Your task to perform on an android device: create a new album in the google photos Image 0: 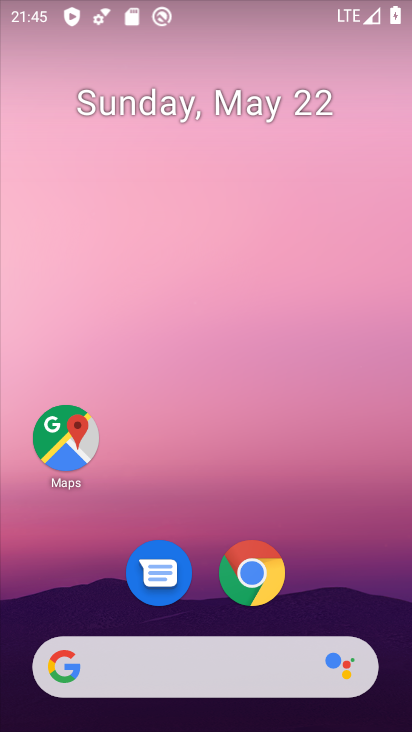
Step 0: press home button
Your task to perform on an android device: create a new album in the google photos Image 1: 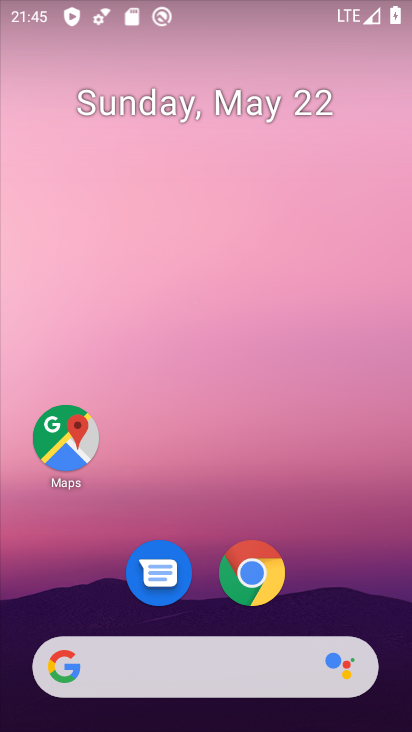
Step 1: drag from (383, 718) to (209, 21)
Your task to perform on an android device: create a new album in the google photos Image 2: 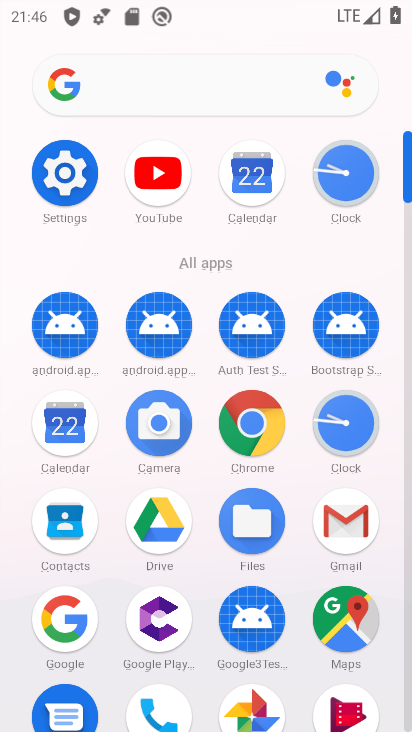
Step 2: click (230, 703)
Your task to perform on an android device: create a new album in the google photos Image 3: 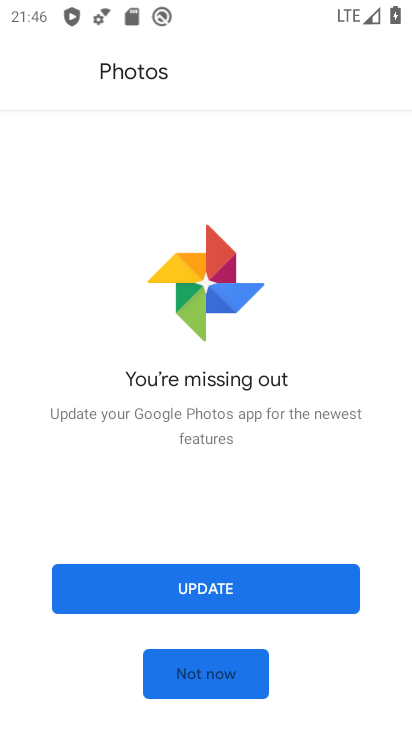
Step 3: click (267, 564)
Your task to perform on an android device: create a new album in the google photos Image 4: 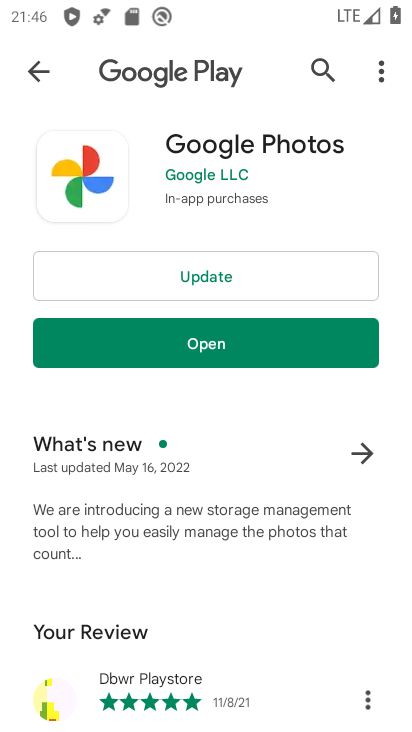
Step 4: click (177, 261)
Your task to perform on an android device: create a new album in the google photos Image 5: 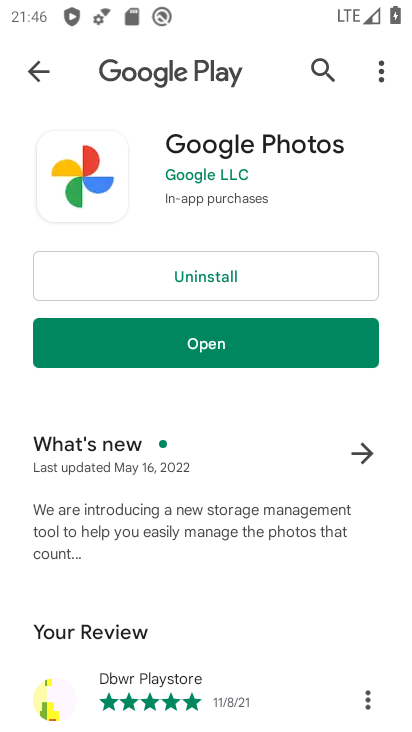
Step 5: click (368, 356)
Your task to perform on an android device: create a new album in the google photos Image 6: 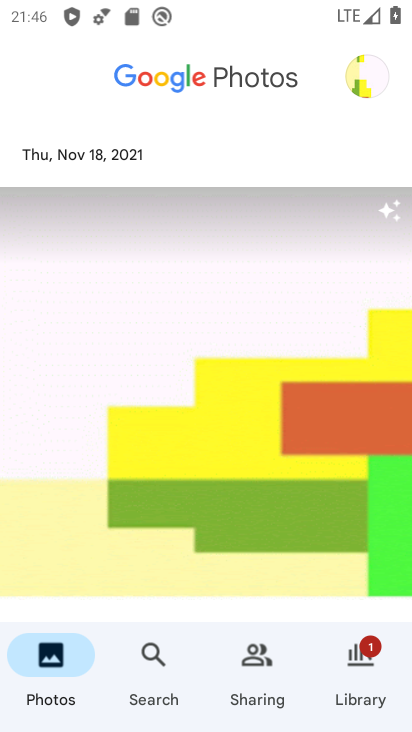
Step 6: click (370, 87)
Your task to perform on an android device: create a new album in the google photos Image 7: 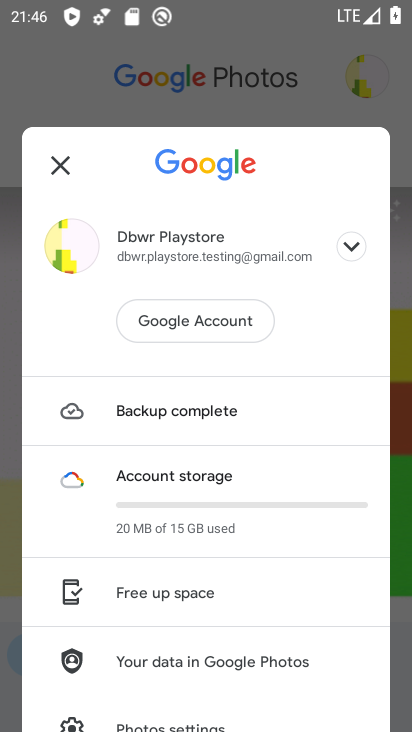
Step 7: click (86, 72)
Your task to perform on an android device: create a new album in the google photos Image 8: 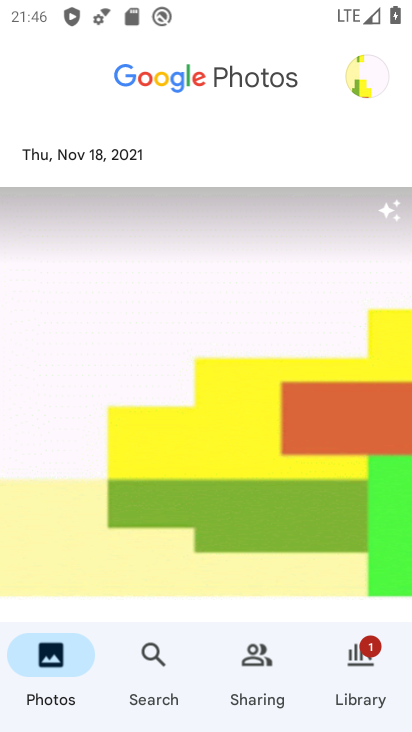
Step 8: drag from (168, 552) to (232, 84)
Your task to perform on an android device: create a new album in the google photos Image 9: 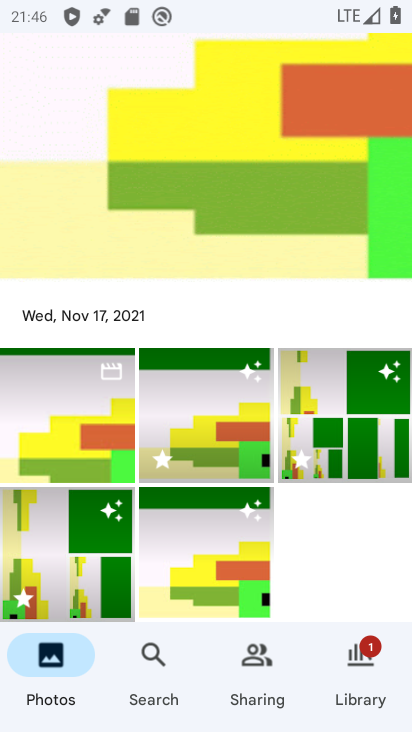
Step 9: click (78, 444)
Your task to perform on an android device: create a new album in the google photos Image 10: 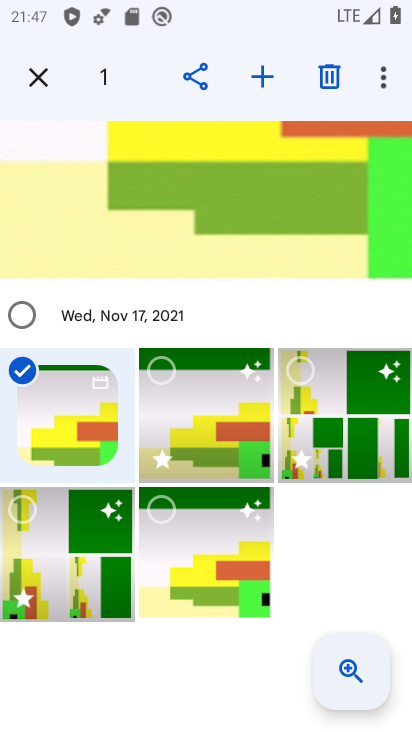
Step 10: click (178, 419)
Your task to perform on an android device: create a new album in the google photos Image 11: 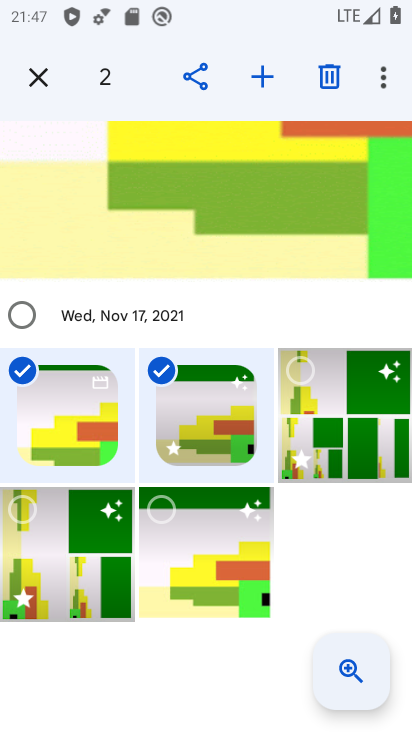
Step 11: click (311, 413)
Your task to perform on an android device: create a new album in the google photos Image 12: 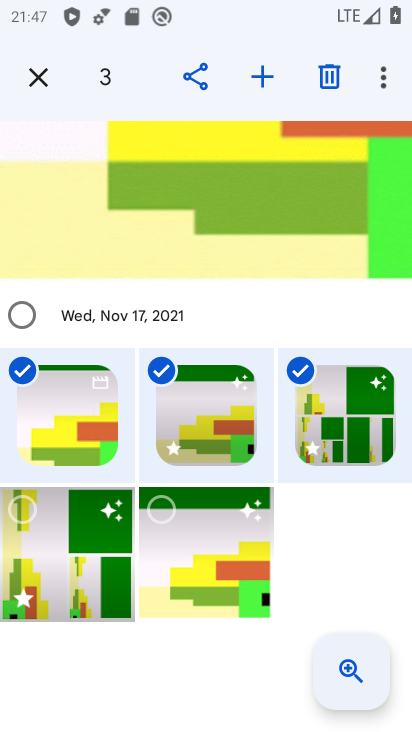
Step 12: click (230, 522)
Your task to perform on an android device: create a new album in the google photos Image 13: 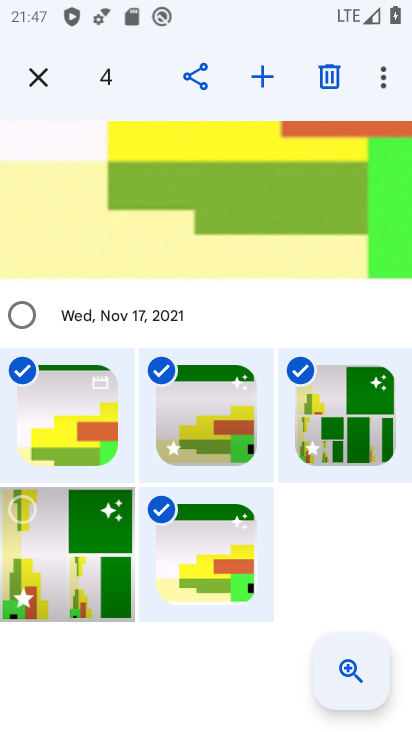
Step 13: click (268, 73)
Your task to perform on an android device: create a new album in the google photos Image 14: 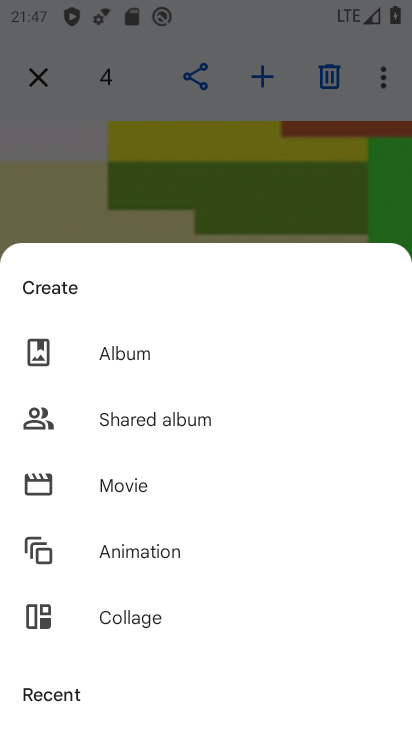
Step 14: click (132, 353)
Your task to perform on an android device: create a new album in the google photos Image 15: 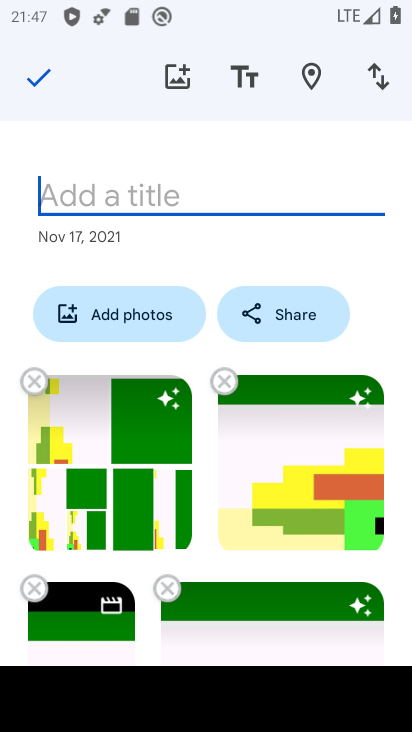
Step 15: type "dfghj"
Your task to perform on an android device: create a new album in the google photos Image 16: 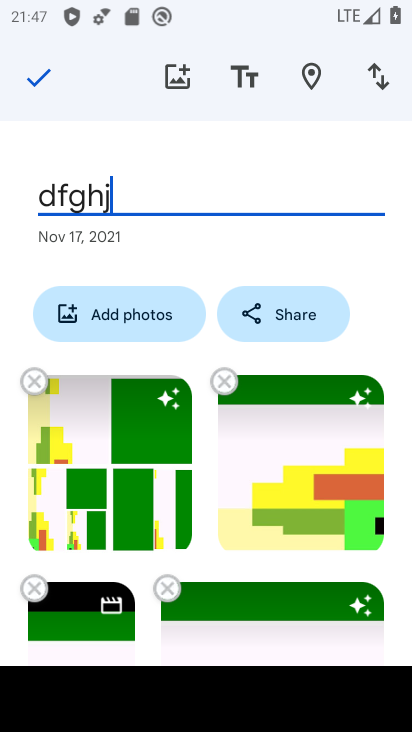
Step 16: type ""
Your task to perform on an android device: create a new album in the google photos Image 17: 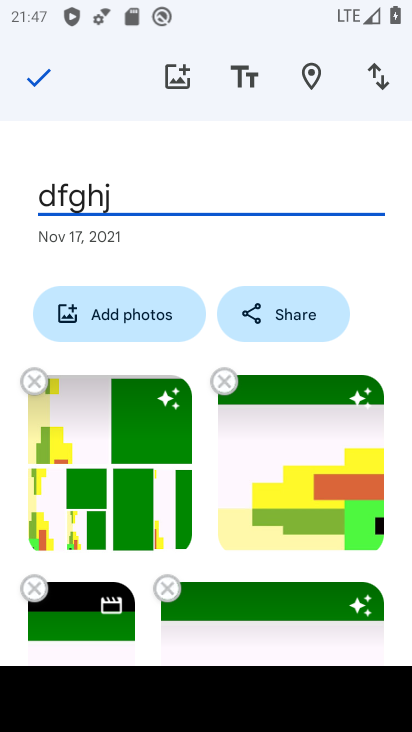
Step 17: click (34, 61)
Your task to perform on an android device: create a new album in the google photos Image 18: 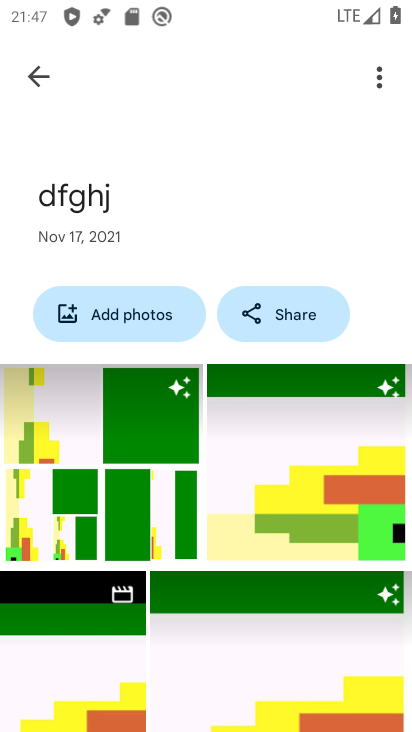
Step 18: task complete